Your task to perform on an android device: turn on bluetooth scan Image 0: 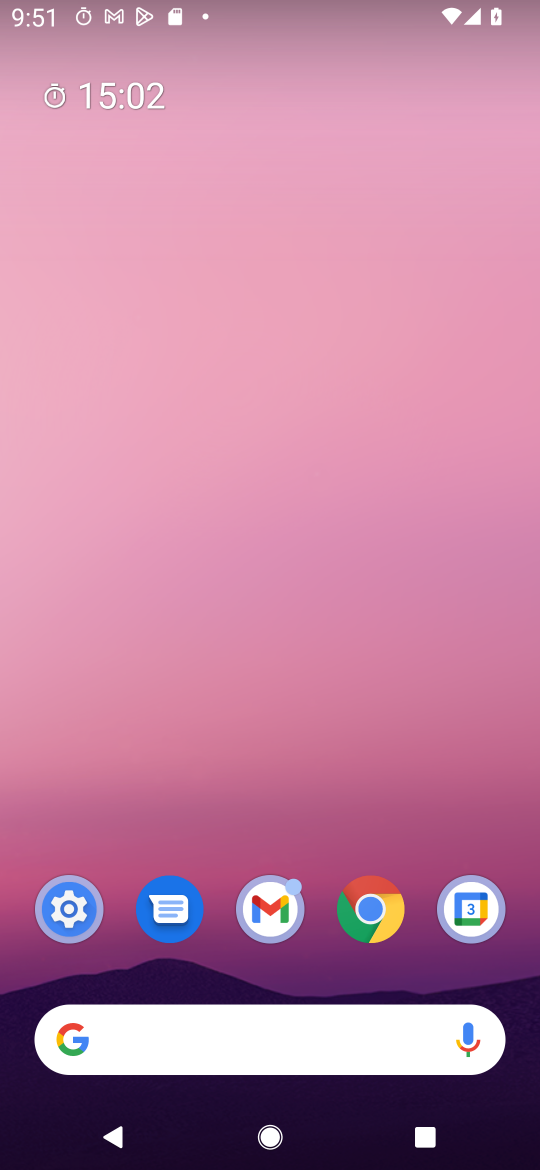
Step 0: press home button
Your task to perform on an android device: turn on bluetooth scan Image 1: 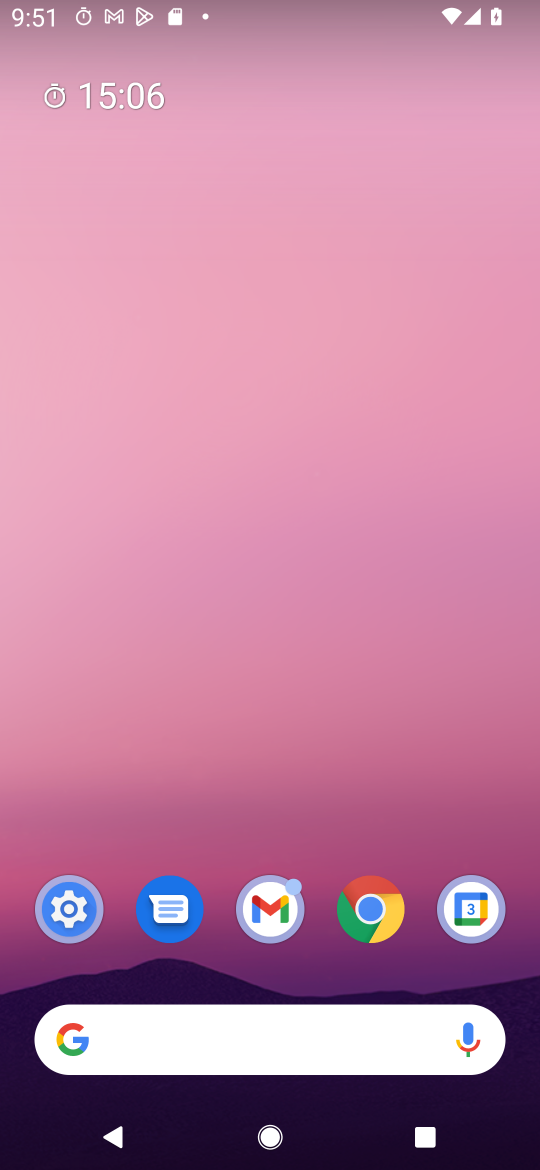
Step 1: drag from (446, 773) to (414, 244)
Your task to perform on an android device: turn on bluetooth scan Image 2: 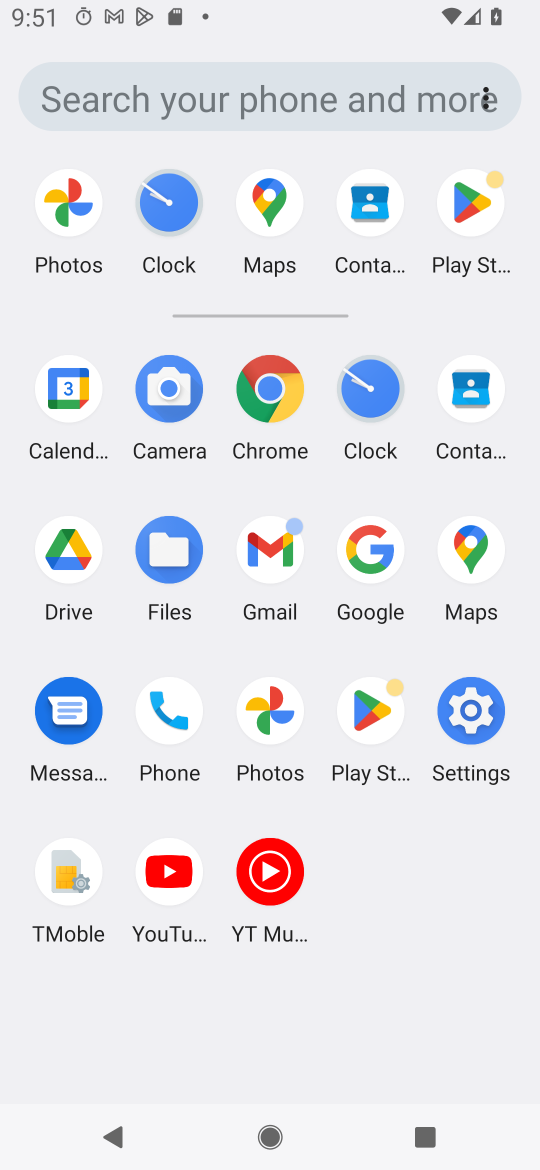
Step 2: click (483, 716)
Your task to perform on an android device: turn on bluetooth scan Image 3: 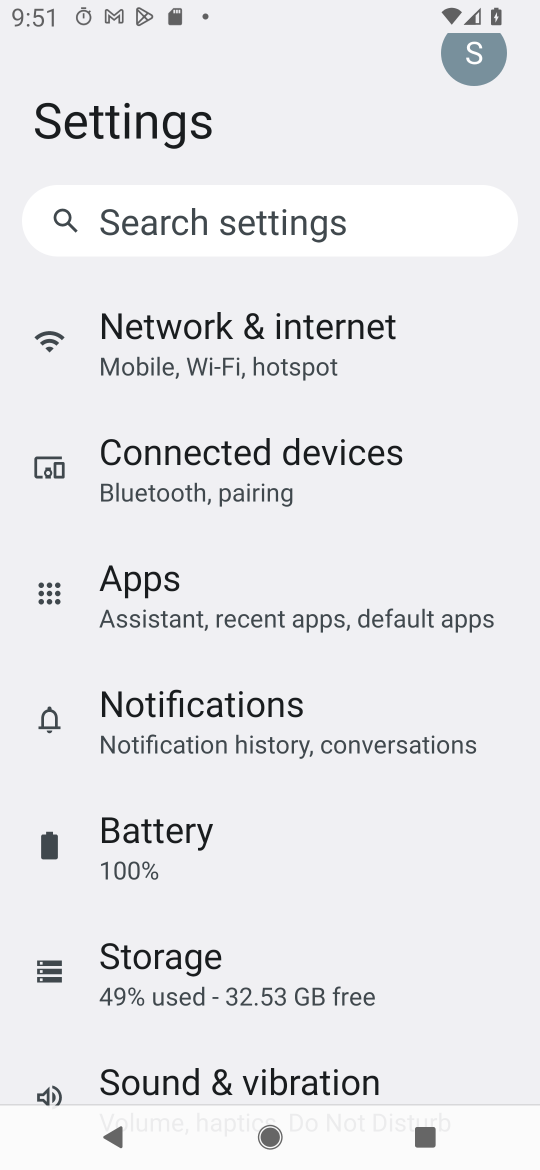
Step 3: drag from (472, 619) to (479, 706)
Your task to perform on an android device: turn on bluetooth scan Image 4: 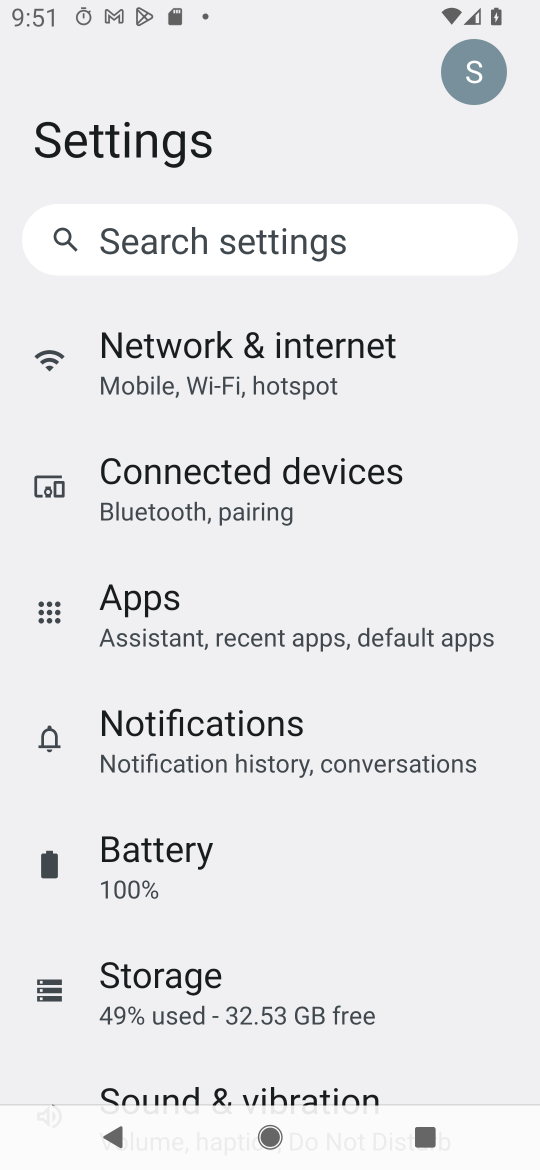
Step 4: drag from (432, 803) to (442, 720)
Your task to perform on an android device: turn on bluetooth scan Image 5: 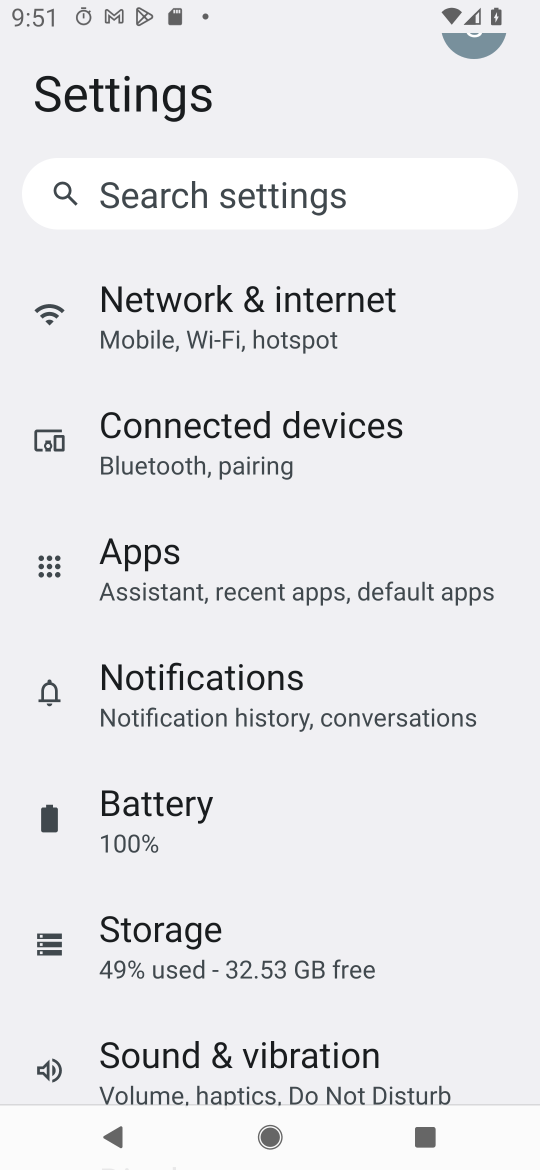
Step 5: drag from (424, 920) to (442, 701)
Your task to perform on an android device: turn on bluetooth scan Image 6: 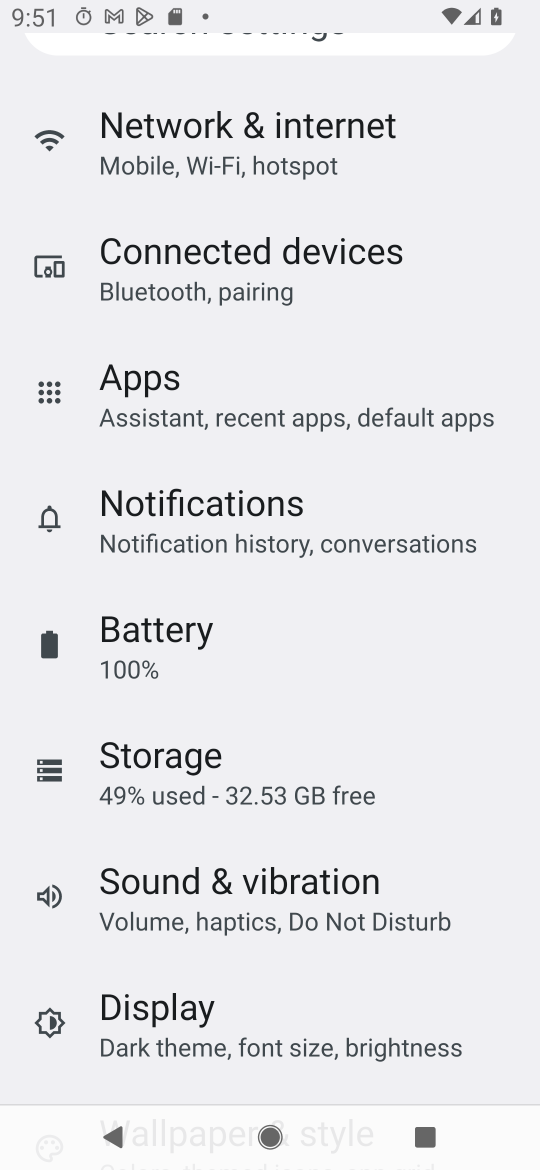
Step 6: drag from (455, 892) to (455, 709)
Your task to perform on an android device: turn on bluetooth scan Image 7: 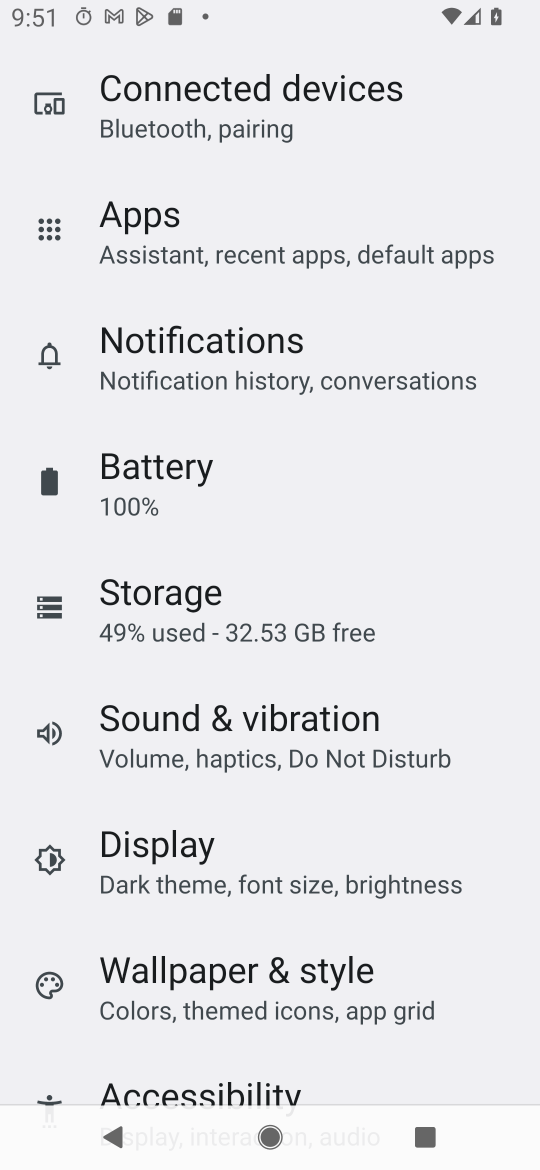
Step 7: drag from (453, 966) to (459, 749)
Your task to perform on an android device: turn on bluetooth scan Image 8: 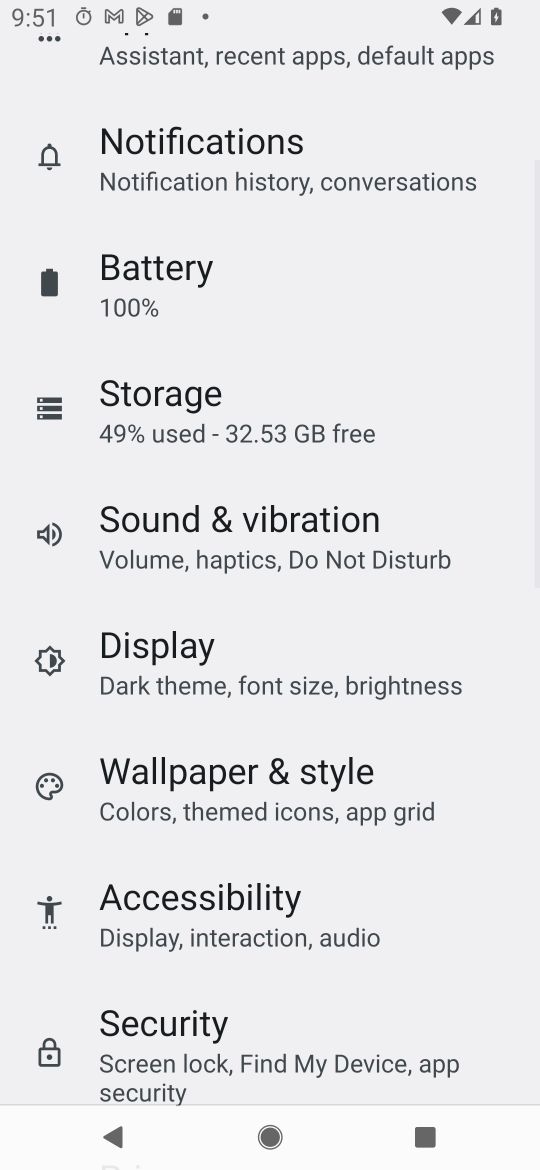
Step 8: drag from (445, 967) to (446, 704)
Your task to perform on an android device: turn on bluetooth scan Image 9: 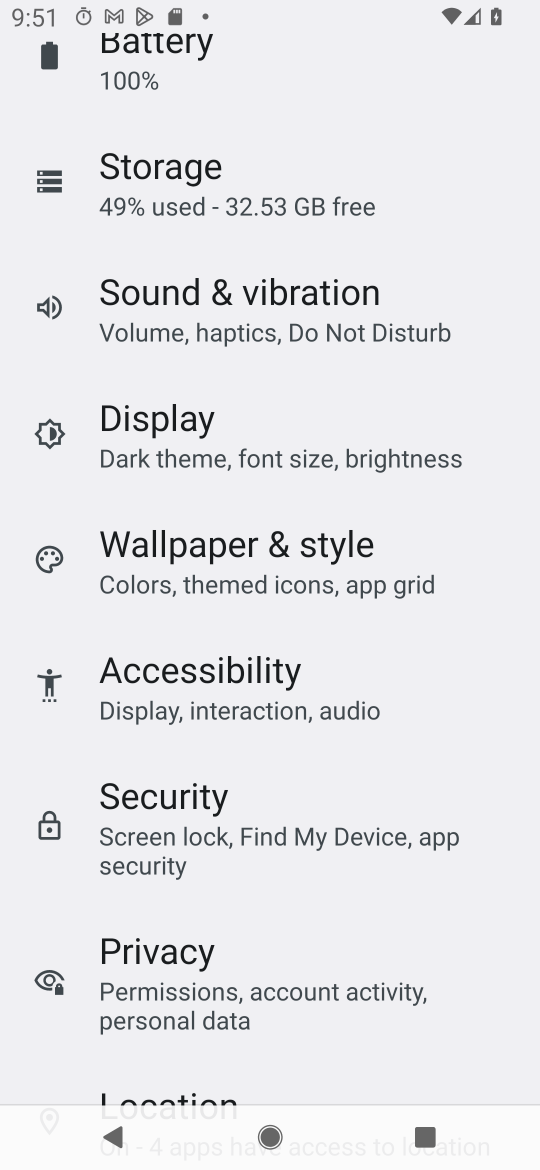
Step 9: drag from (476, 934) to (482, 750)
Your task to perform on an android device: turn on bluetooth scan Image 10: 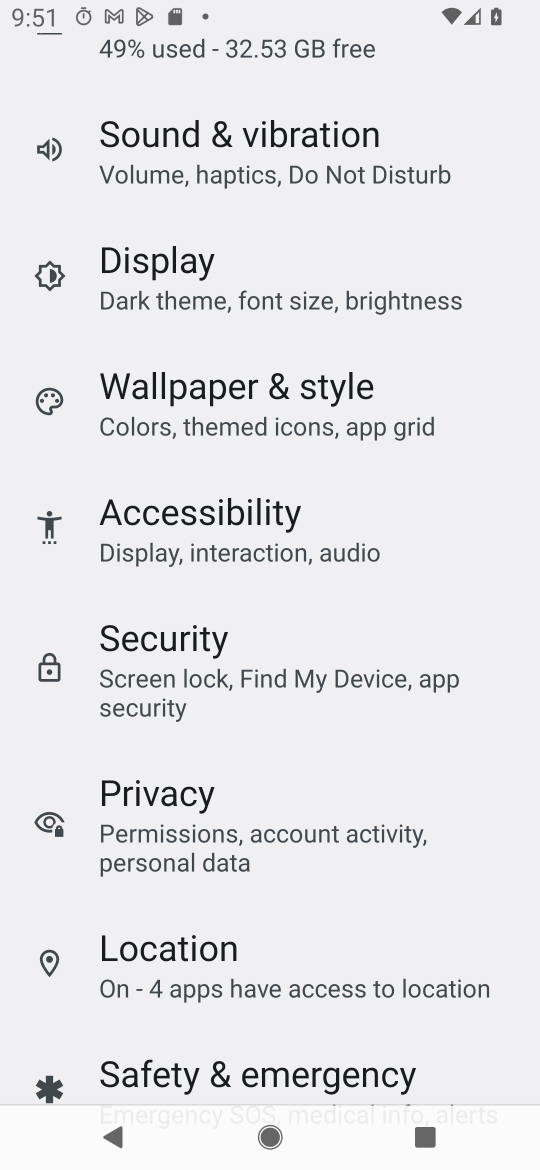
Step 10: drag from (458, 911) to (454, 633)
Your task to perform on an android device: turn on bluetooth scan Image 11: 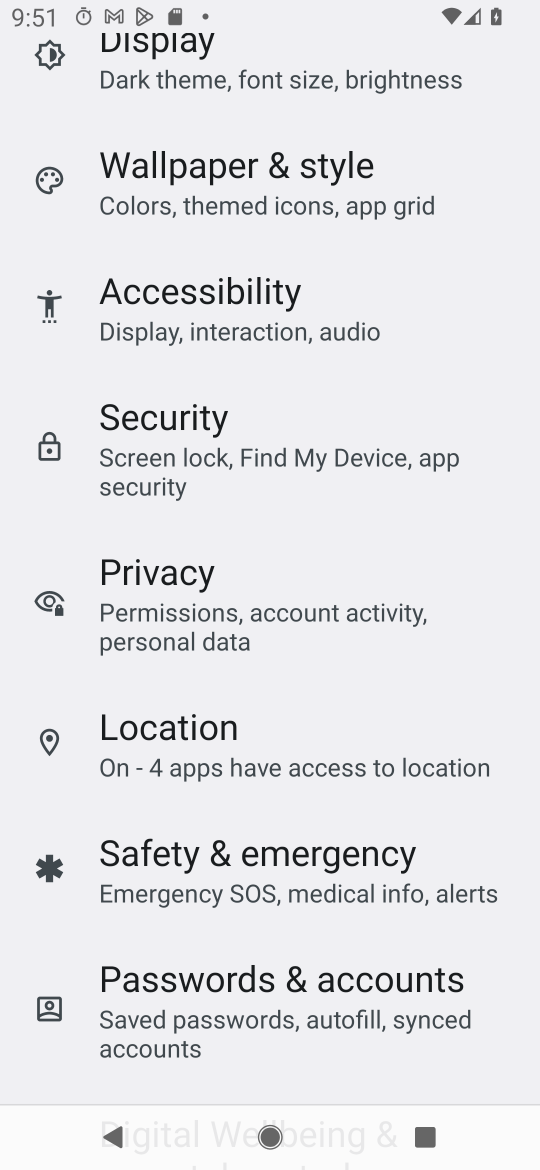
Step 11: drag from (461, 943) to (470, 662)
Your task to perform on an android device: turn on bluetooth scan Image 12: 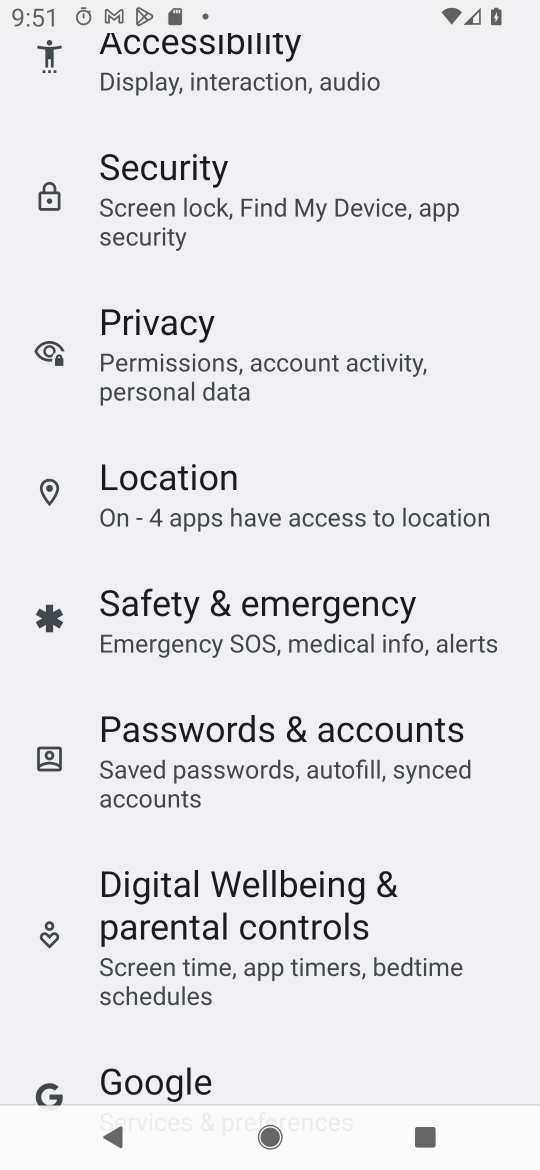
Step 12: click (253, 502)
Your task to perform on an android device: turn on bluetooth scan Image 13: 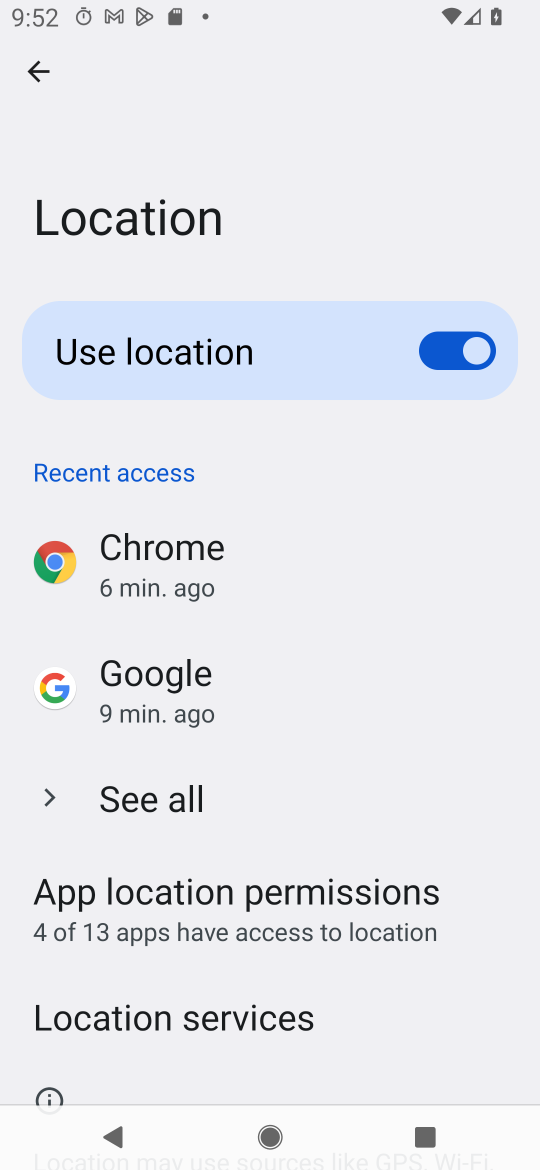
Step 13: drag from (434, 950) to (407, 658)
Your task to perform on an android device: turn on bluetooth scan Image 14: 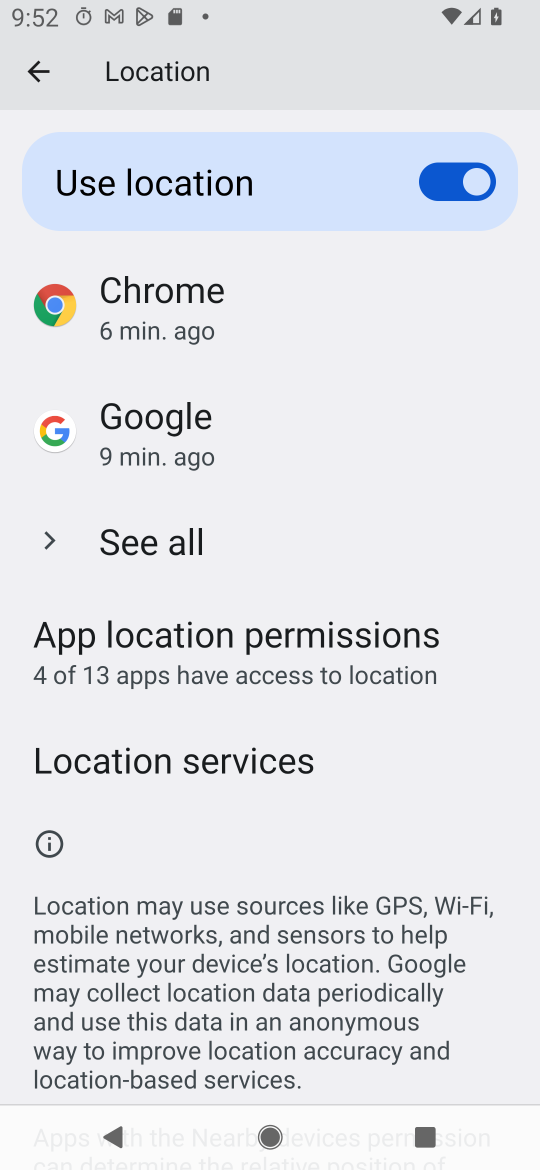
Step 14: click (278, 766)
Your task to perform on an android device: turn on bluetooth scan Image 15: 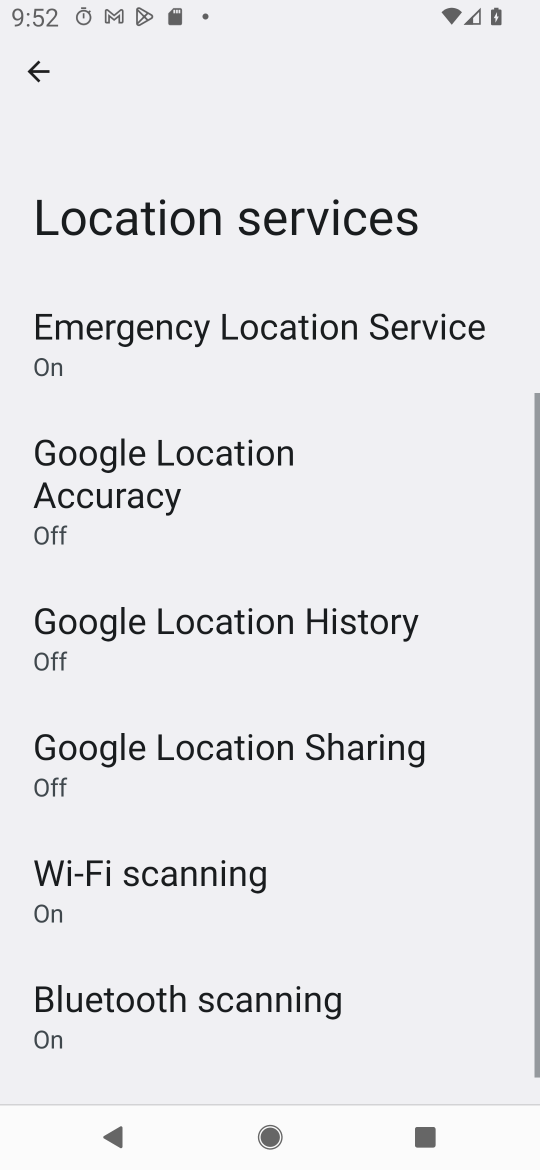
Step 15: task complete